Your task to perform on an android device: add a label to a message in the gmail app Image 0: 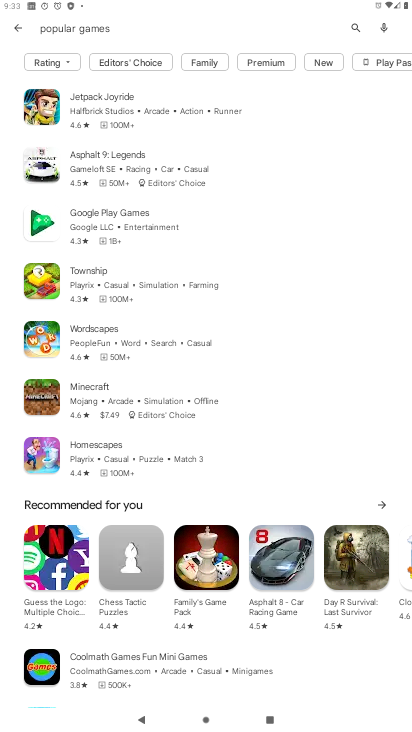
Step 0: press home button
Your task to perform on an android device: add a label to a message in the gmail app Image 1: 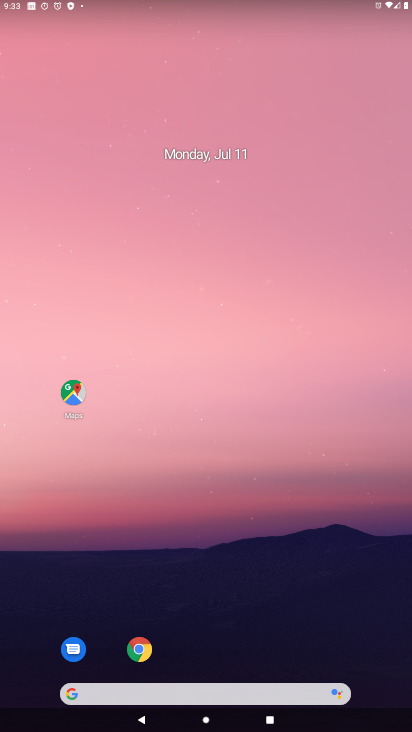
Step 1: drag from (166, 691) to (373, 109)
Your task to perform on an android device: add a label to a message in the gmail app Image 2: 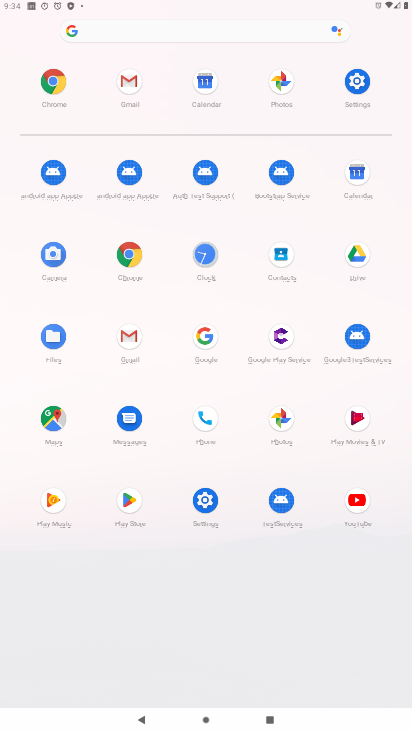
Step 2: click (129, 81)
Your task to perform on an android device: add a label to a message in the gmail app Image 3: 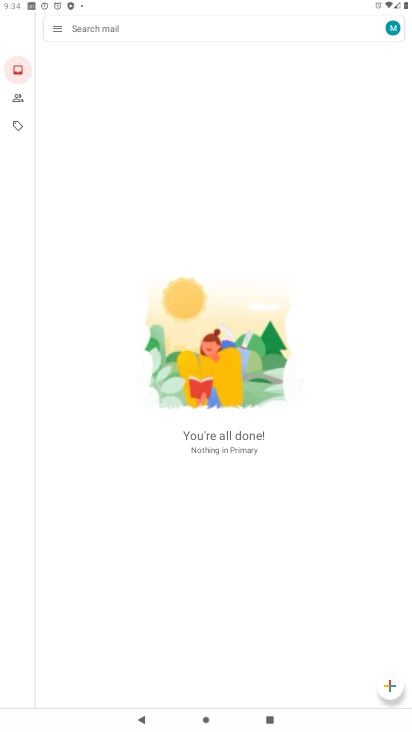
Step 3: click (54, 26)
Your task to perform on an android device: add a label to a message in the gmail app Image 4: 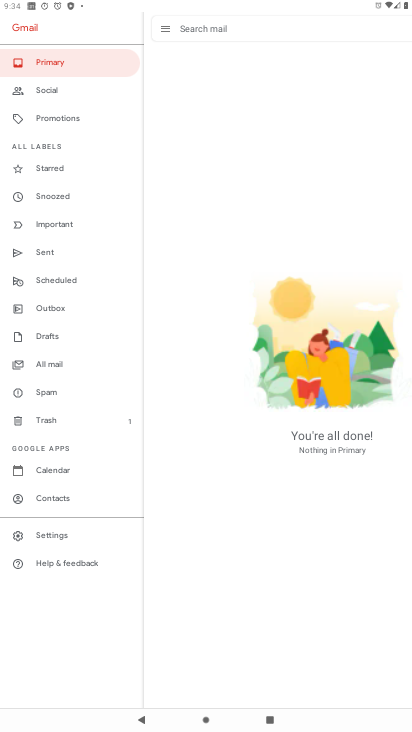
Step 4: click (56, 362)
Your task to perform on an android device: add a label to a message in the gmail app Image 5: 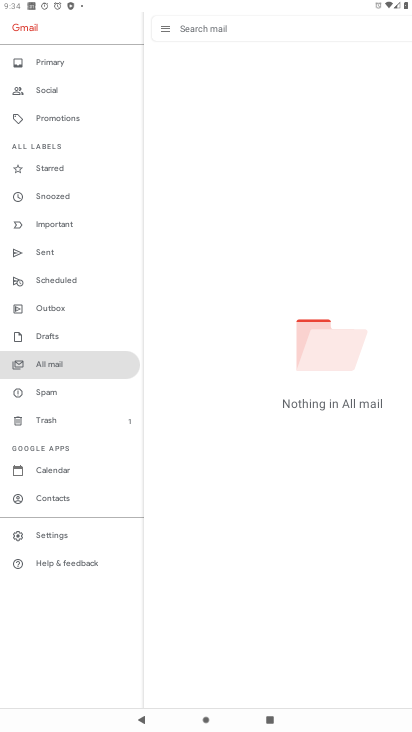
Step 5: click (59, 177)
Your task to perform on an android device: add a label to a message in the gmail app Image 6: 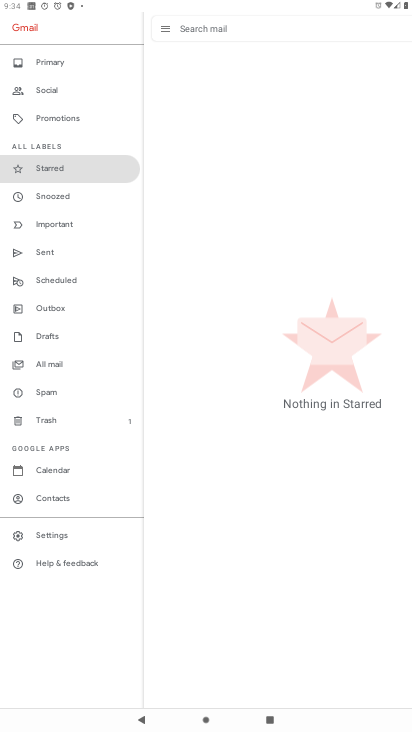
Step 6: click (54, 201)
Your task to perform on an android device: add a label to a message in the gmail app Image 7: 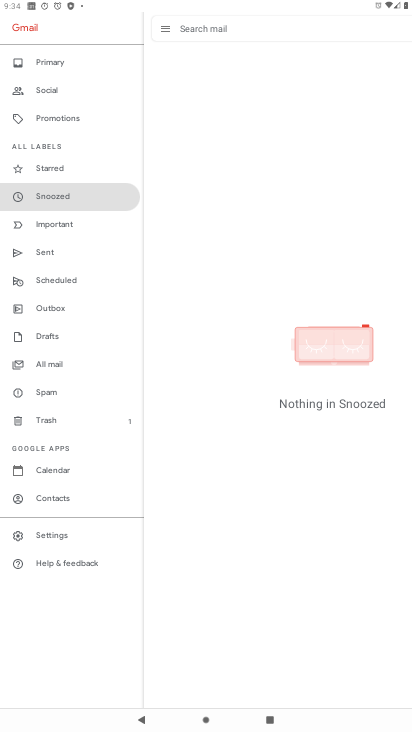
Step 7: click (50, 231)
Your task to perform on an android device: add a label to a message in the gmail app Image 8: 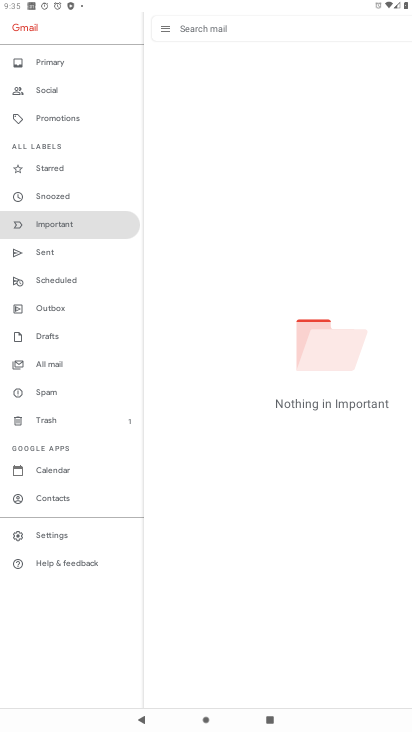
Step 8: click (43, 266)
Your task to perform on an android device: add a label to a message in the gmail app Image 9: 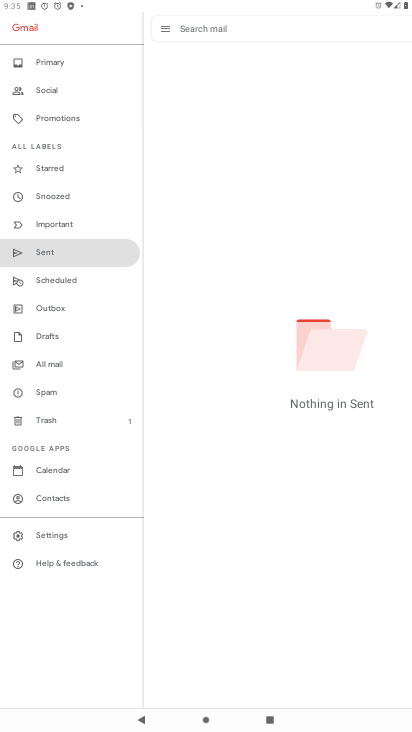
Step 9: click (45, 278)
Your task to perform on an android device: add a label to a message in the gmail app Image 10: 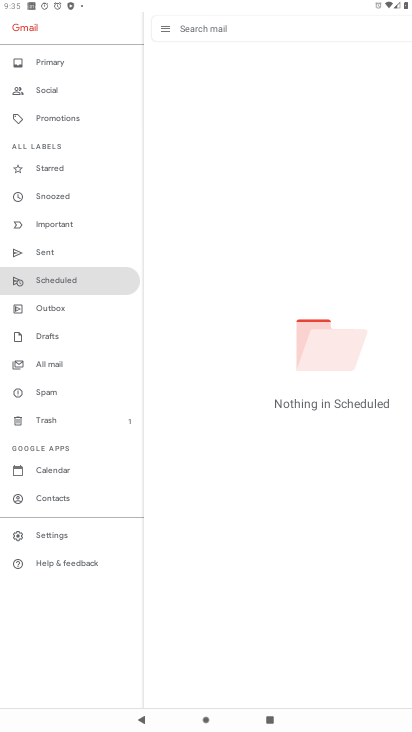
Step 10: task complete